Your task to perform on an android device: delete location history Image 0: 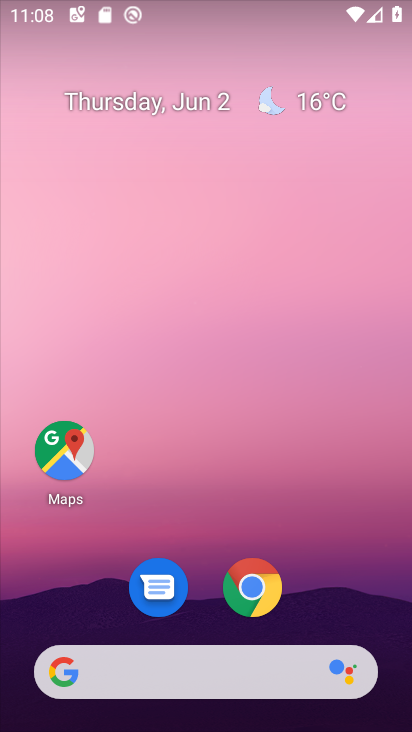
Step 0: drag from (223, 503) to (235, 0)
Your task to perform on an android device: delete location history Image 1: 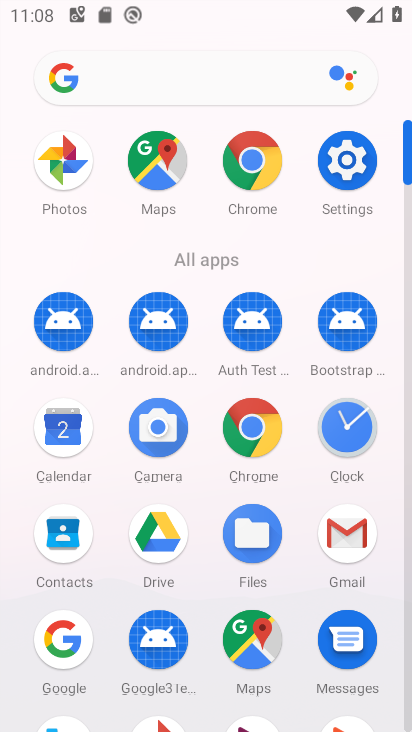
Step 1: click (159, 162)
Your task to perform on an android device: delete location history Image 2: 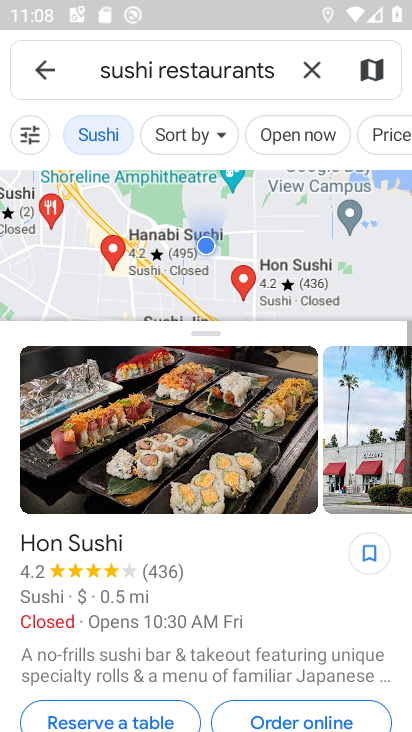
Step 2: click (45, 66)
Your task to perform on an android device: delete location history Image 3: 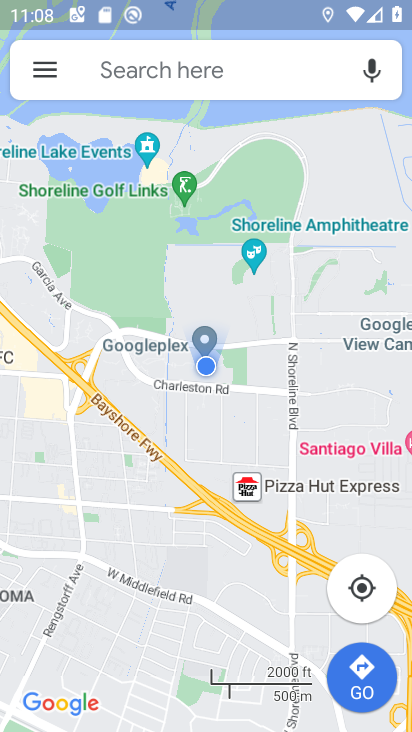
Step 3: click (45, 66)
Your task to perform on an android device: delete location history Image 4: 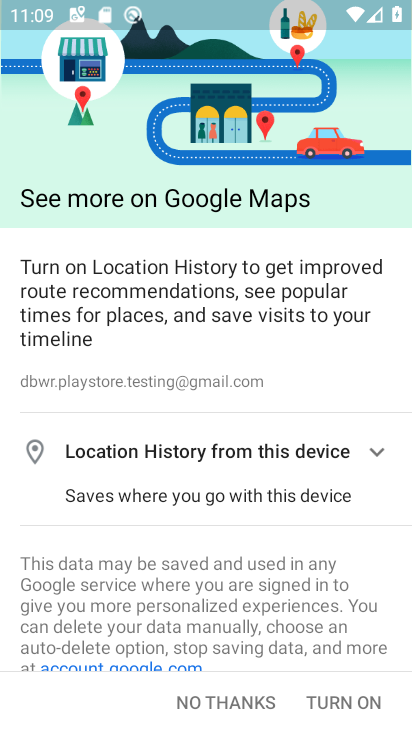
Step 4: click (368, 698)
Your task to perform on an android device: delete location history Image 5: 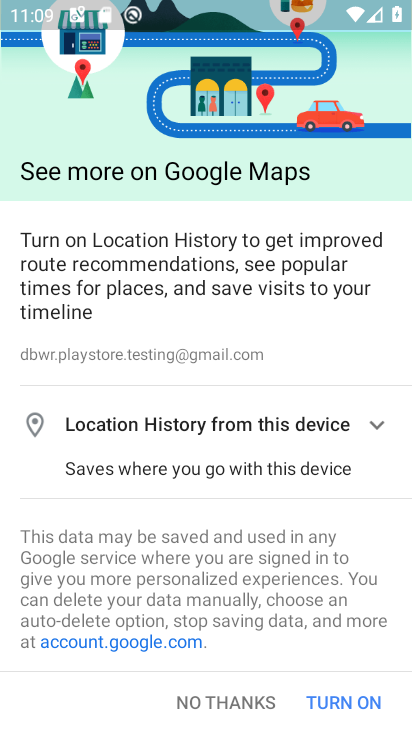
Step 5: click (368, 698)
Your task to perform on an android device: delete location history Image 6: 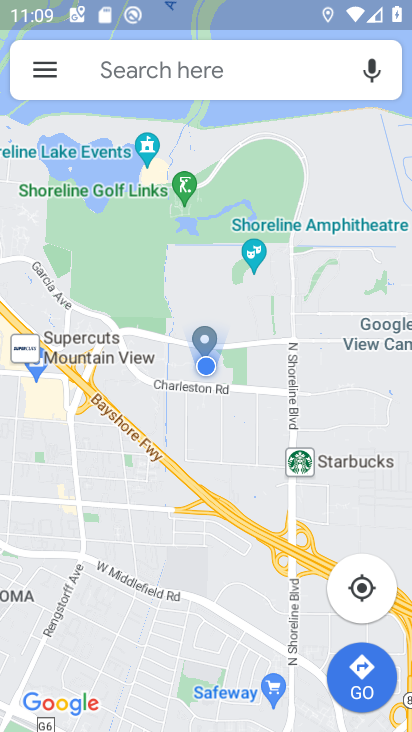
Step 6: click (47, 70)
Your task to perform on an android device: delete location history Image 7: 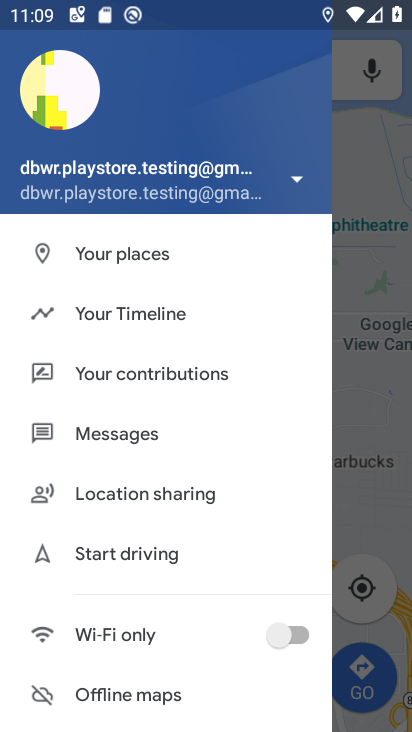
Step 7: click (162, 306)
Your task to perform on an android device: delete location history Image 8: 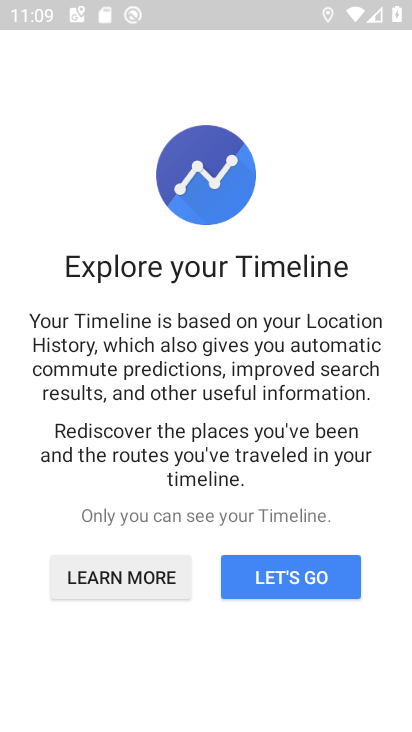
Step 8: click (332, 578)
Your task to perform on an android device: delete location history Image 9: 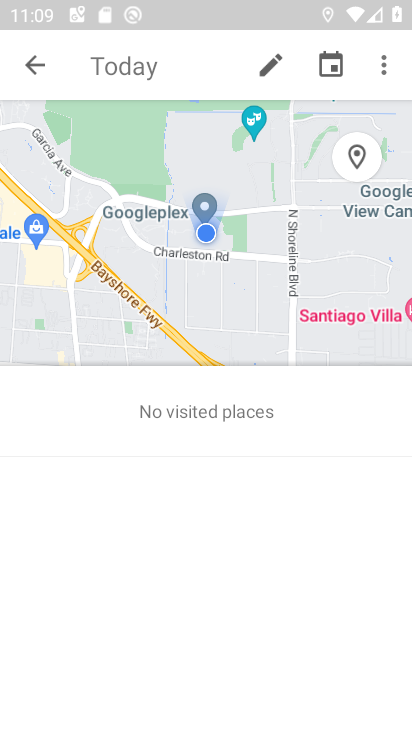
Step 9: click (379, 66)
Your task to perform on an android device: delete location history Image 10: 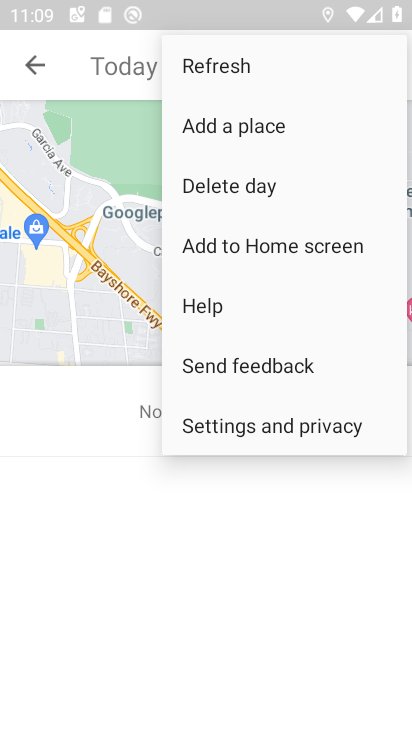
Step 10: click (349, 424)
Your task to perform on an android device: delete location history Image 11: 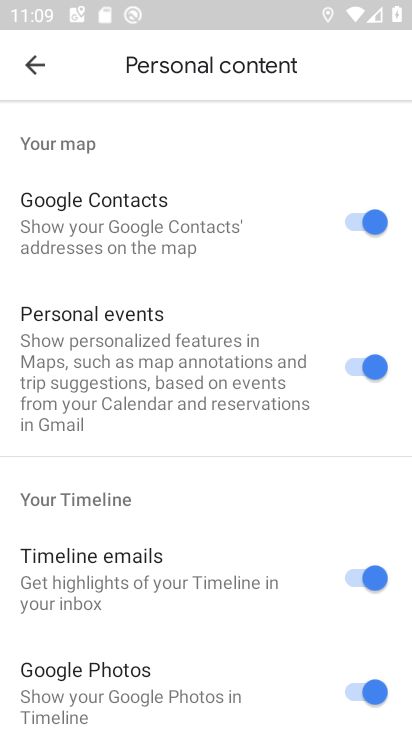
Step 11: drag from (252, 613) to (222, 68)
Your task to perform on an android device: delete location history Image 12: 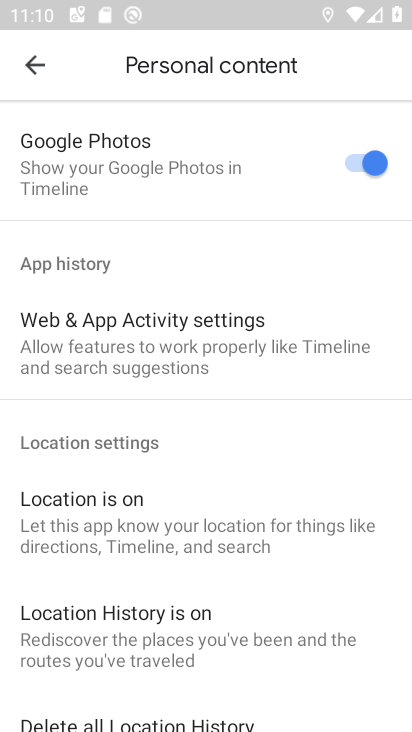
Step 12: drag from (245, 566) to (242, 194)
Your task to perform on an android device: delete location history Image 13: 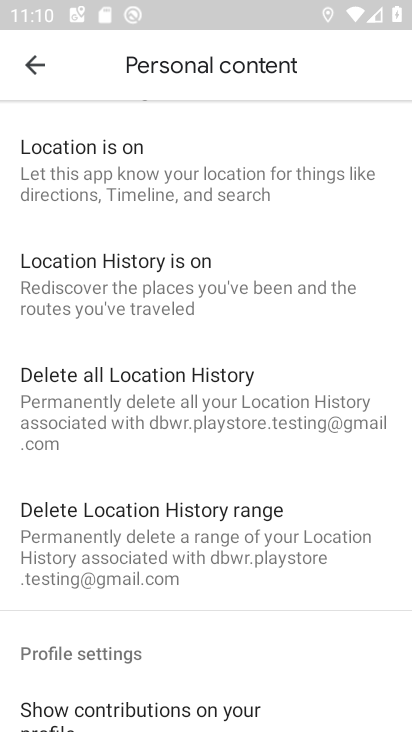
Step 13: click (233, 389)
Your task to perform on an android device: delete location history Image 14: 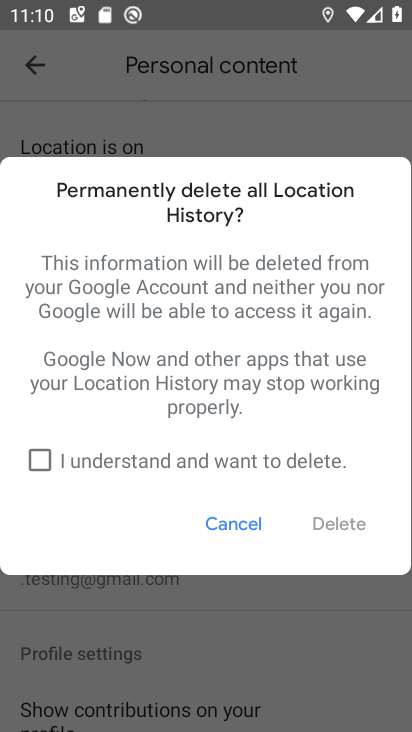
Step 14: click (39, 457)
Your task to perform on an android device: delete location history Image 15: 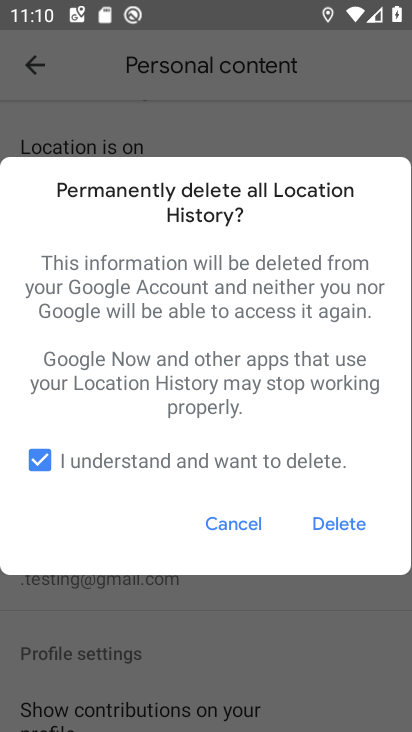
Step 15: click (336, 521)
Your task to perform on an android device: delete location history Image 16: 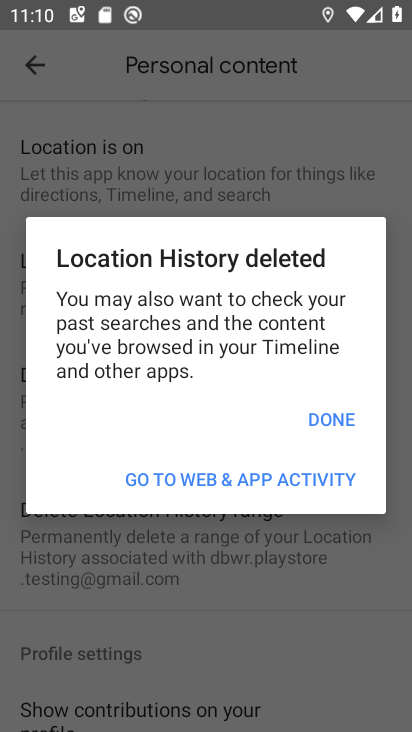
Step 16: click (347, 414)
Your task to perform on an android device: delete location history Image 17: 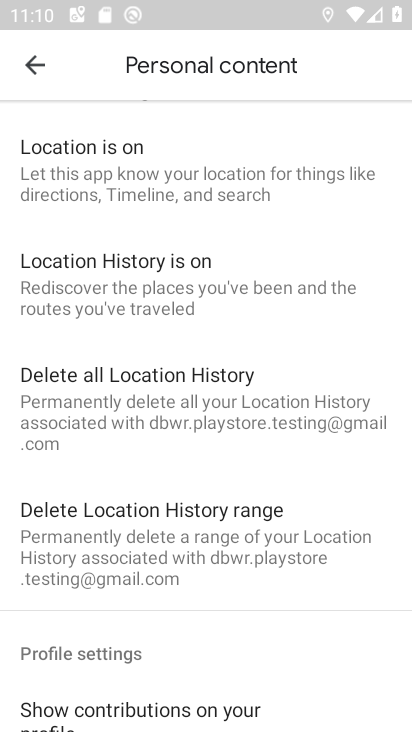
Step 17: click (260, 412)
Your task to perform on an android device: delete location history Image 18: 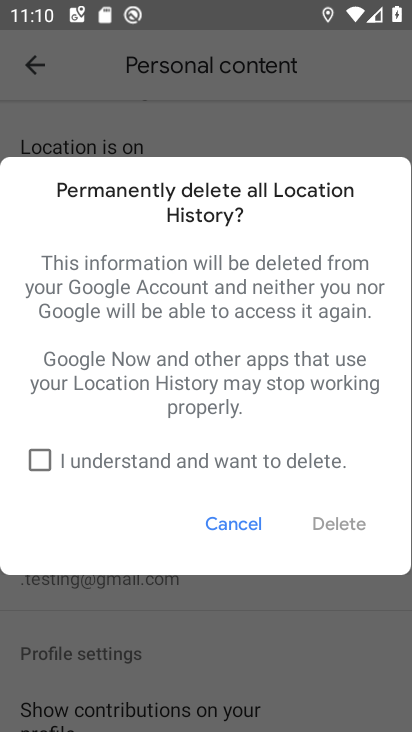
Step 18: click (30, 452)
Your task to perform on an android device: delete location history Image 19: 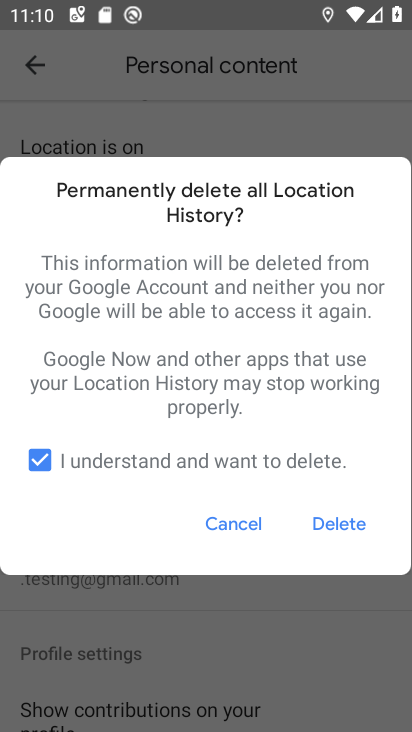
Step 19: click (343, 522)
Your task to perform on an android device: delete location history Image 20: 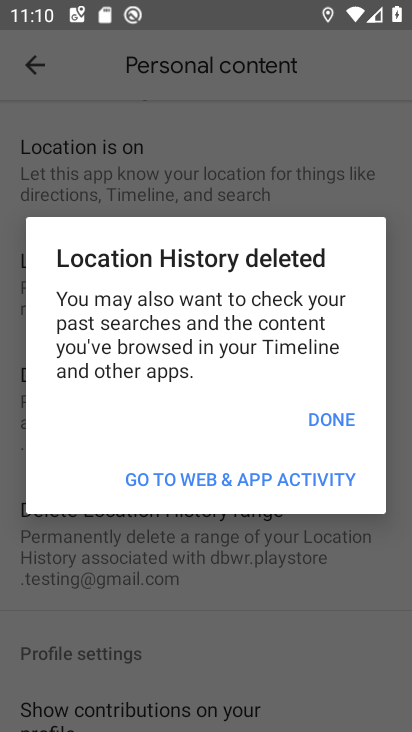
Step 20: click (348, 415)
Your task to perform on an android device: delete location history Image 21: 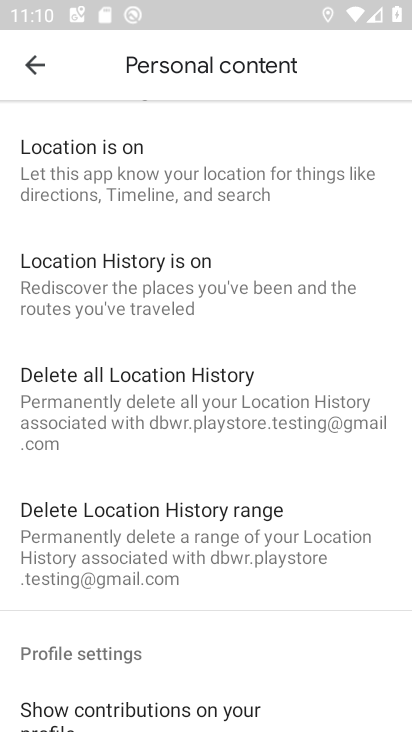
Step 21: task complete